Your task to perform on an android device: Open accessibility settings Image 0: 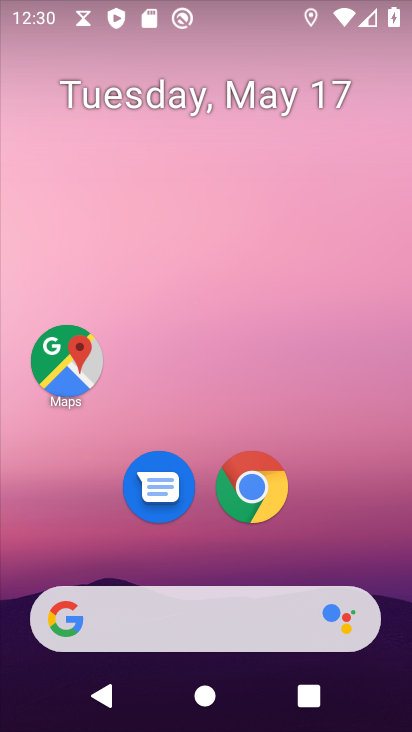
Step 0: drag from (330, 506) to (293, 75)
Your task to perform on an android device: Open accessibility settings Image 1: 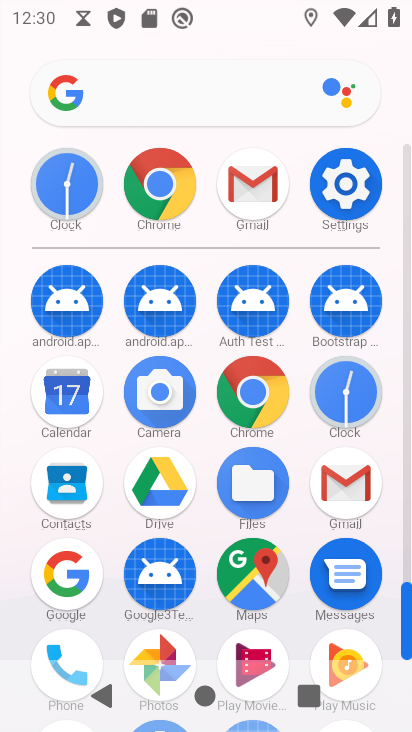
Step 1: drag from (19, 542) to (40, 249)
Your task to perform on an android device: Open accessibility settings Image 2: 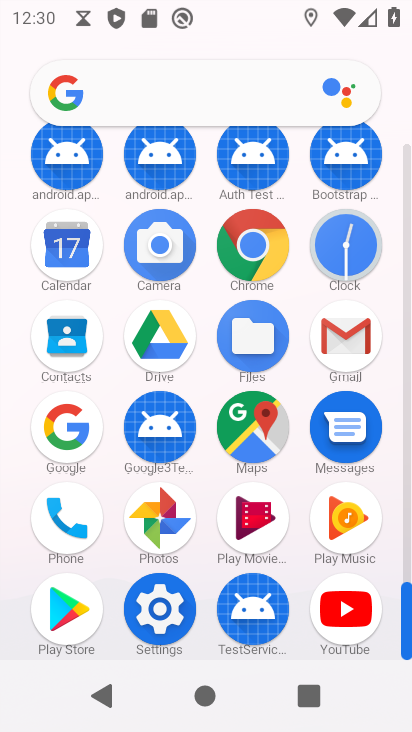
Step 2: click (154, 604)
Your task to perform on an android device: Open accessibility settings Image 3: 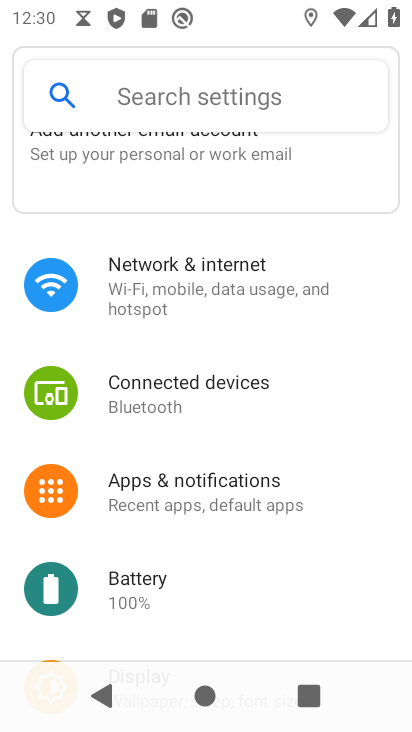
Step 3: drag from (265, 565) to (294, 151)
Your task to perform on an android device: Open accessibility settings Image 4: 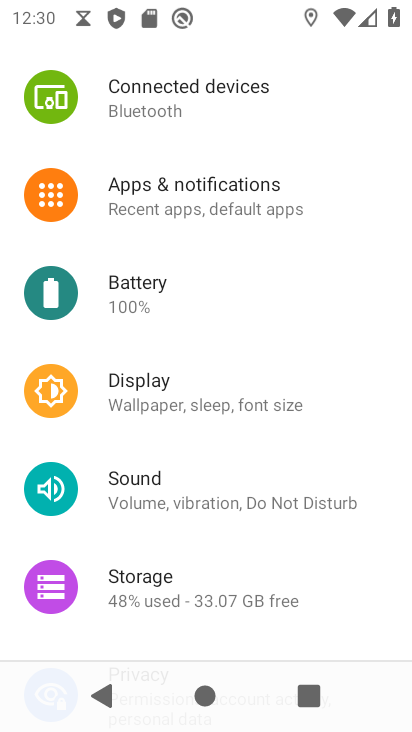
Step 4: drag from (241, 582) to (254, 111)
Your task to perform on an android device: Open accessibility settings Image 5: 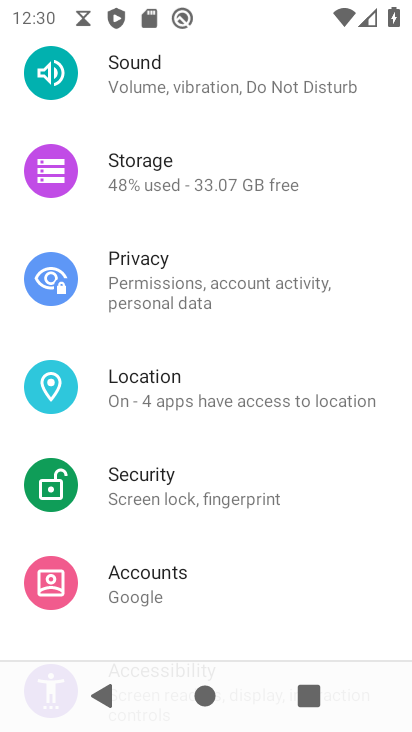
Step 5: drag from (234, 510) to (258, 149)
Your task to perform on an android device: Open accessibility settings Image 6: 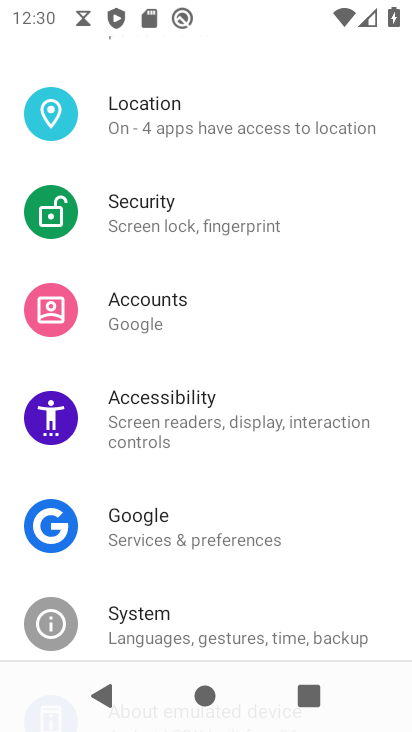
Step 6: click (187, 420)
Your task to perform on an android device: Open accessibility settings Image 7: 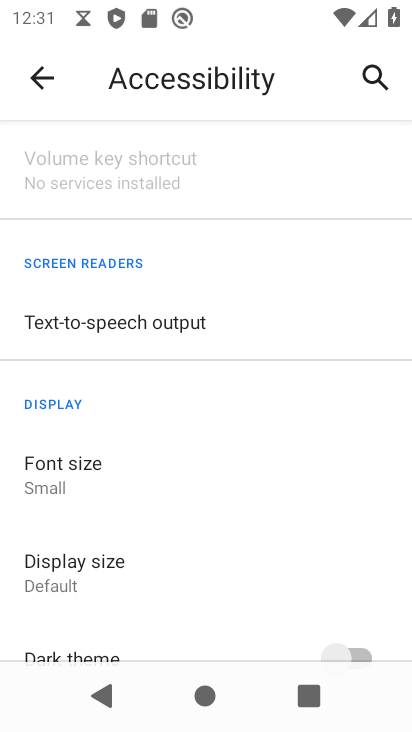
Step 7: task complete